Your task to perform on an android device: toggle improve location accuracy Image 0: 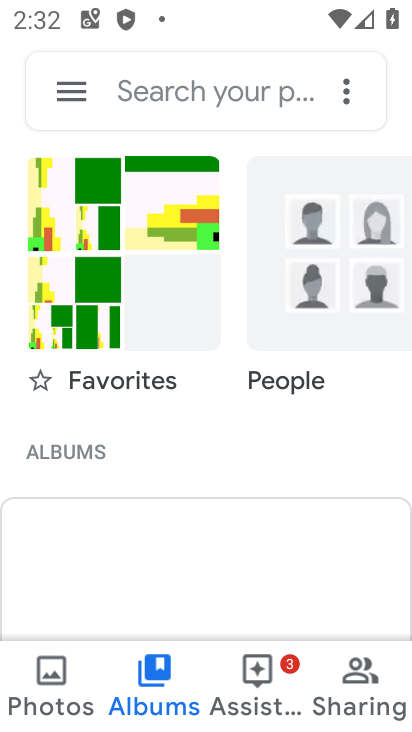
Step 0: press home button
Your task to perform on an android device: toggle improve location accuracy Image 1: 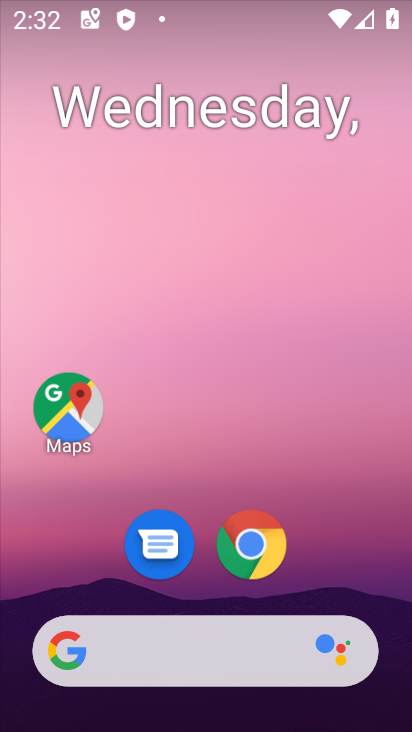
Step 1: drag from (335, 509) to (366, 125)
Your task to perform on an android device: toggle improve location accuracy Image 2: 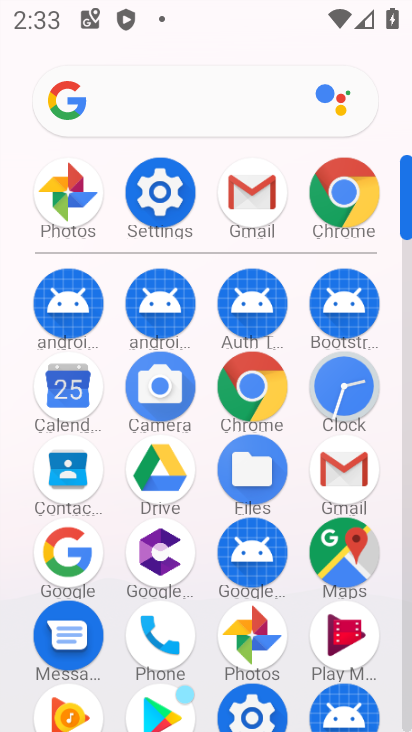
Step 2: click (171, 203)
Your task to perform on an android device: toggle improve location accuracy Image 3: 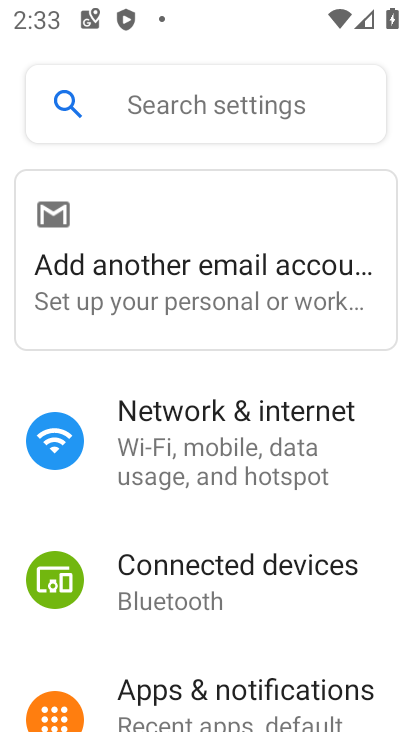
Step 3: drag from (211, 677) to (232, 235)
Your task to perform on an android device: toggle improve location accuracy Image 4: 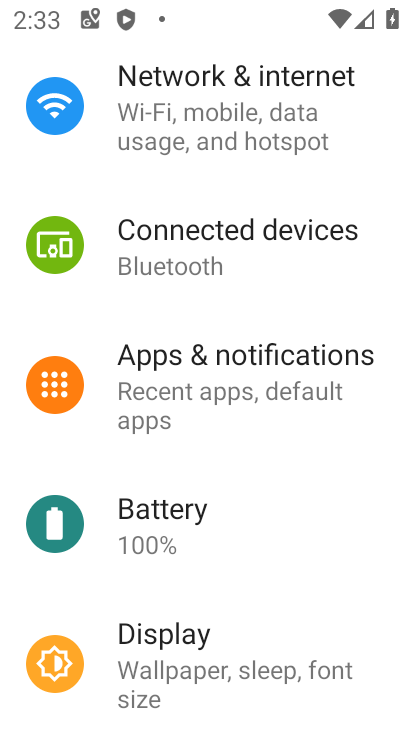
Step 4: drag from (293, 618) to (230, 194)
Your task to perform on an android device: toggle improve location accuracy Image 5: 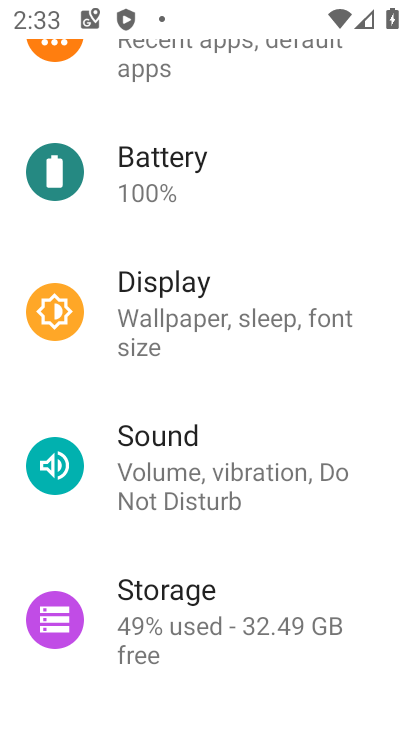
Step 5: drag from (245, 590) to (245, 260)
Your task to perform on an android device: toggle improve location accuracy Image 6: 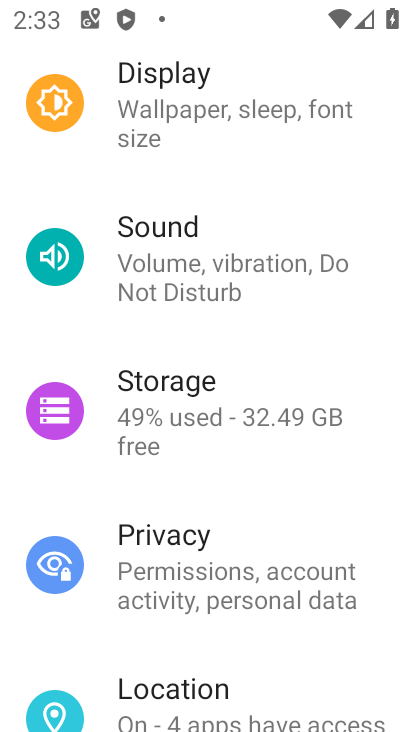
Step 6: drag from (225, 664) to (253, 284)
Your task to perform on an android device: toggle improve location accuracy Image 7: 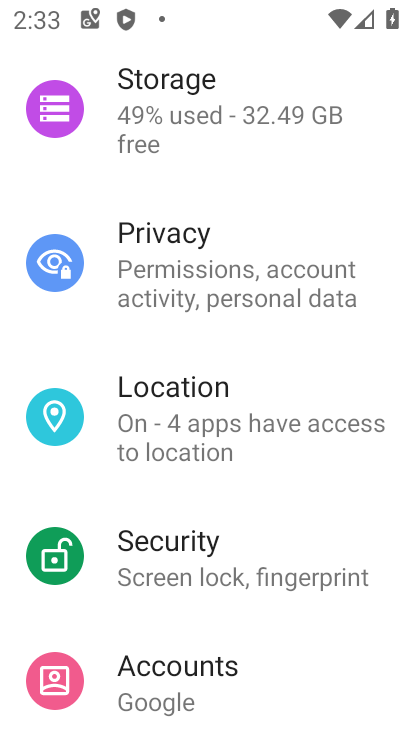
Step 7: click (218, 425)
Your task to perform on an android device: toggle improve location accuracy Image 8: 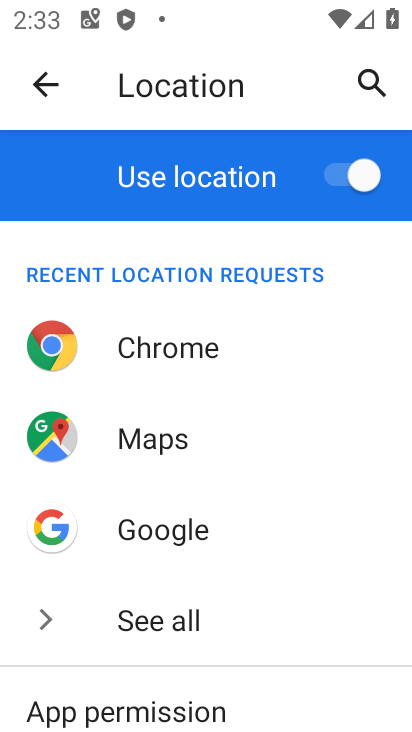
Step 8: drag from (247, 711) to (243, 196)
Your task to perform on an android device: toggle improve location accuracy Image 9: 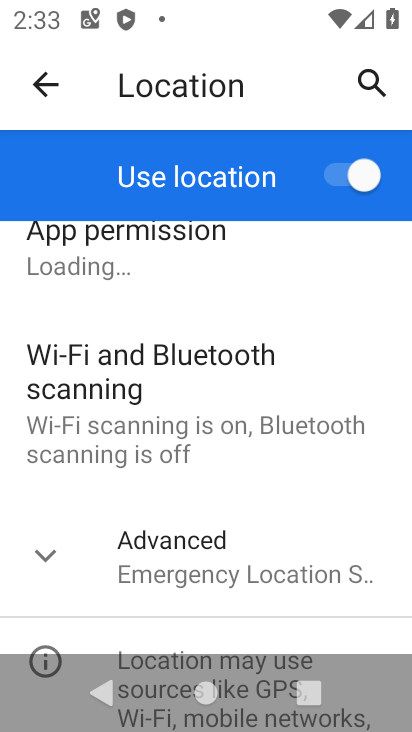
Step 9: drag from (268, 613) to (276, 402)
Your task to perform on an android device: toggle improve location accuracy Image 10: 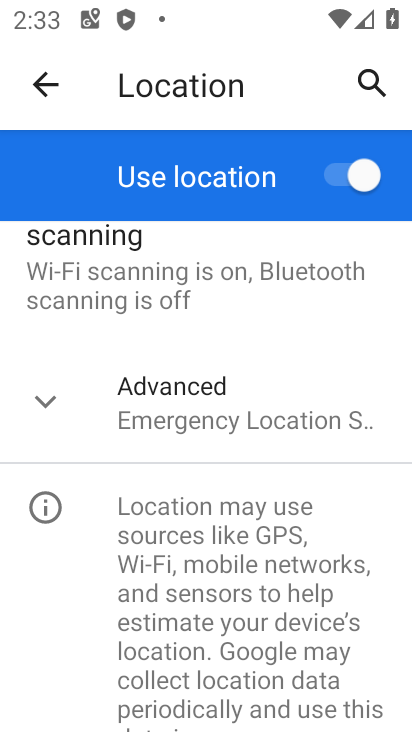
Step 10: click (232, 396)
Your task to perform on an android device: toggle improve location accuracy Image 11: 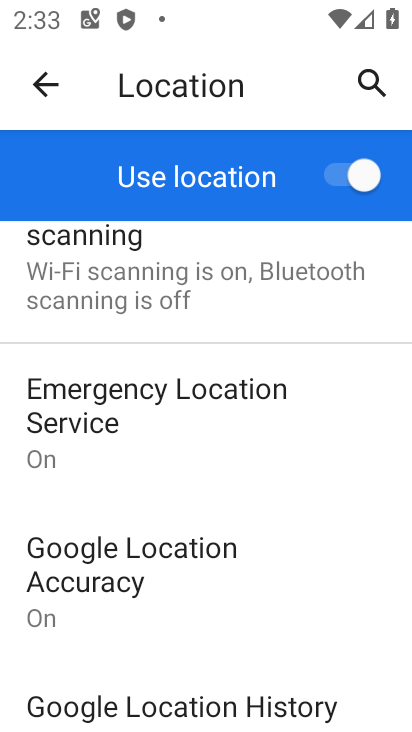
Step 11: click (97, 580)
Your task to perform on an android device: toggle improve location accuracy Image 12: 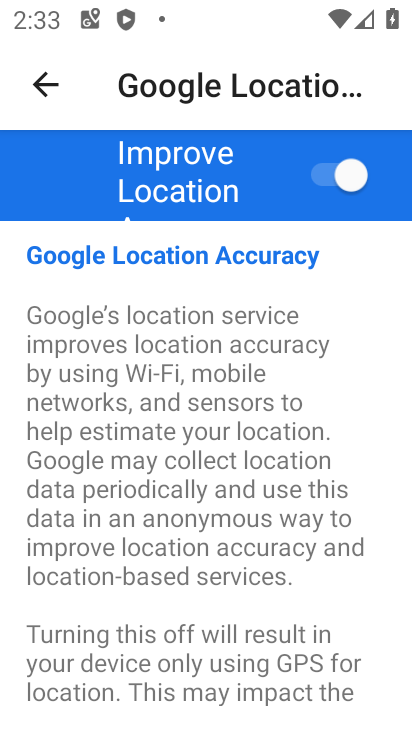
Step 12: click (313, 176)
Your task to perform on an android device: toggle improve location accuracy Image 13: 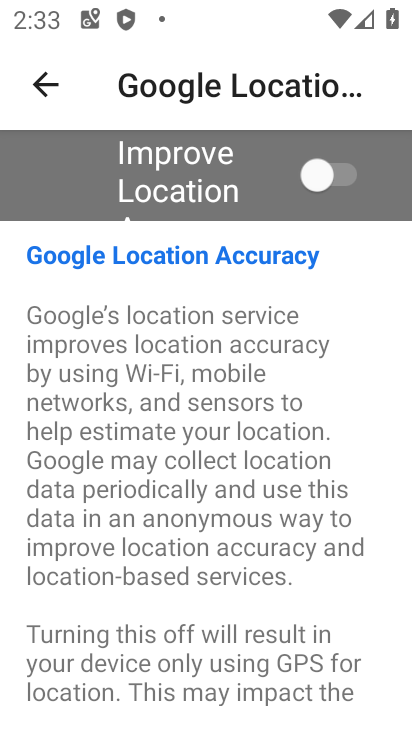
Step 13: task complete